Your task to perform on an android device: When is my next appointment? Image 0: 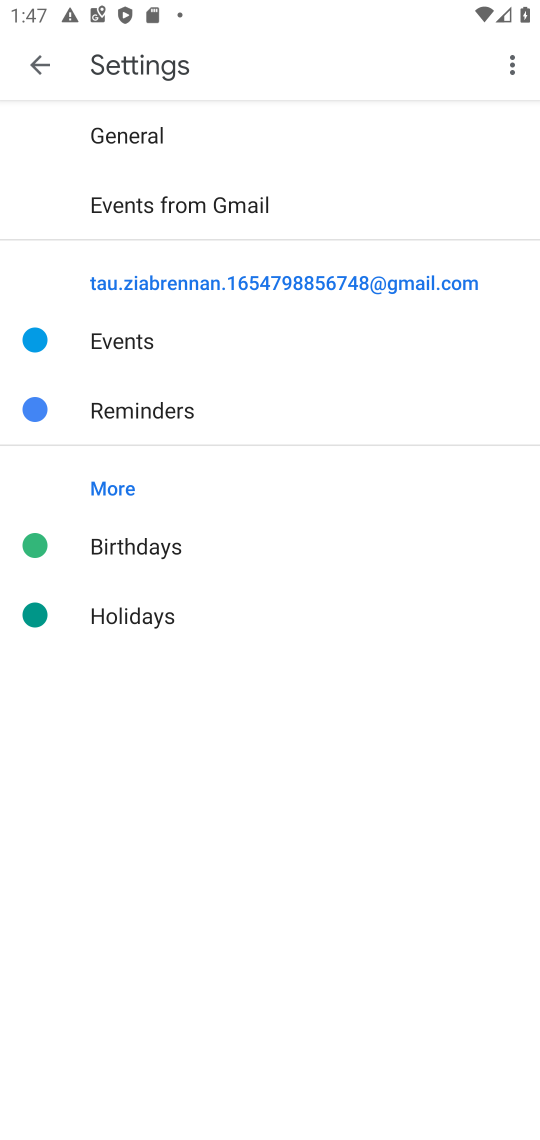
Step 0: press home button
Your task to perform on an android device: When is my next appointment? Image 1: 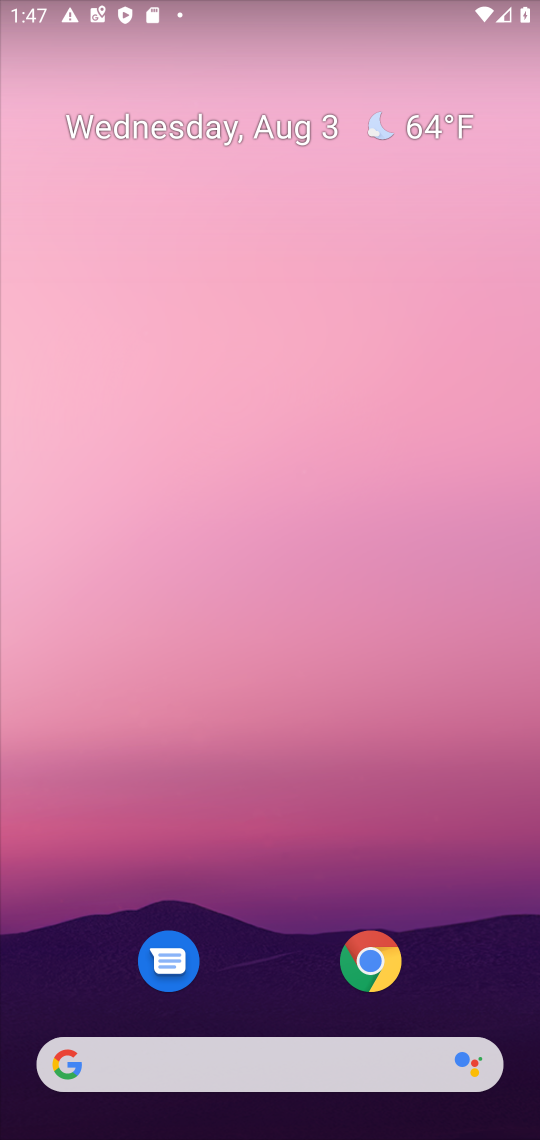
Step 1: drag from (280, 567) to (300, 71)
Your task to perform on an android device: When is my next appointment? Image 2: 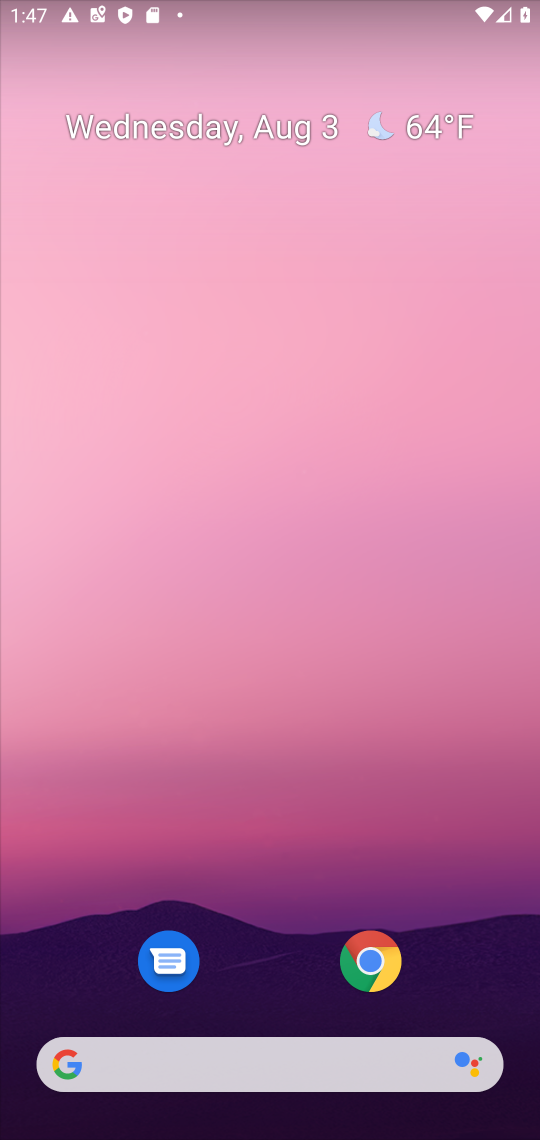
Step 2: drag from (262, 972) to (267, 7)
Your task to perform on an android device: When is my next appointment? Image 3: 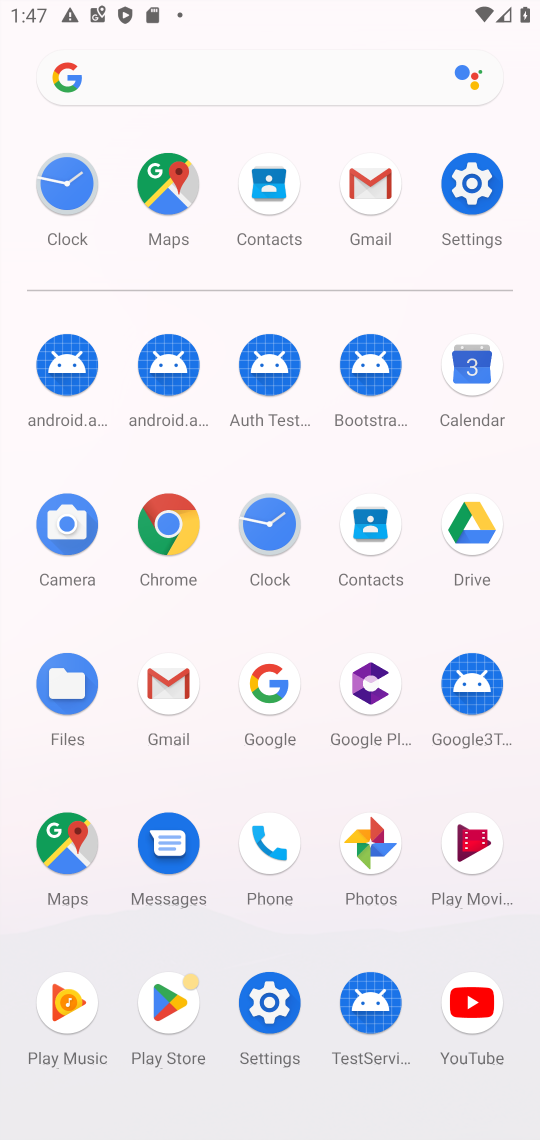
Step 3: click (473, 369)
Your task to perform on an android device: When is my next appointment? Image 4: 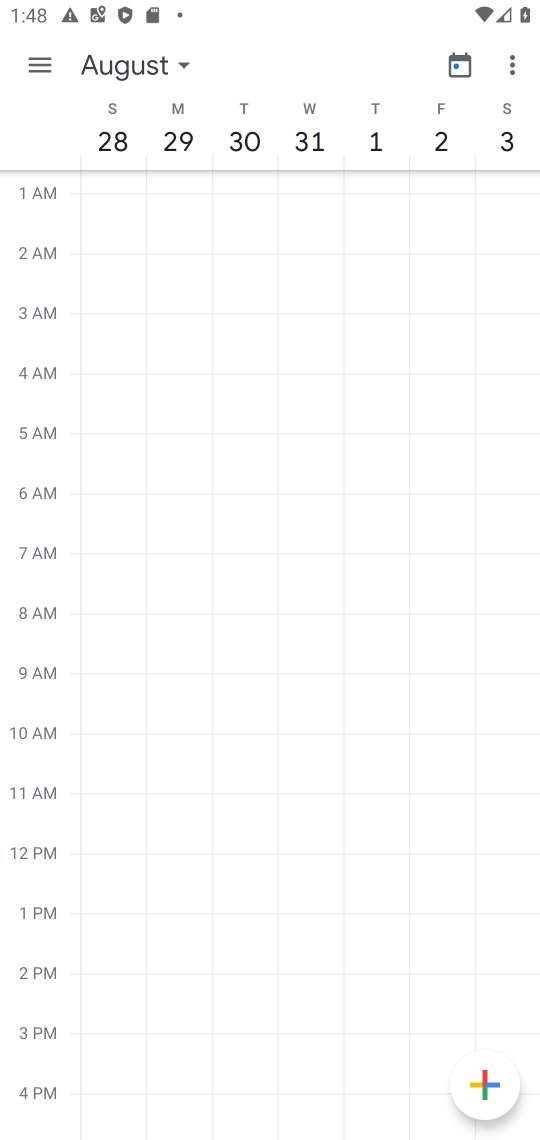
Step 4: click (47, 73)
Your task to perform on an android device: When is my next appointment? Image 5: 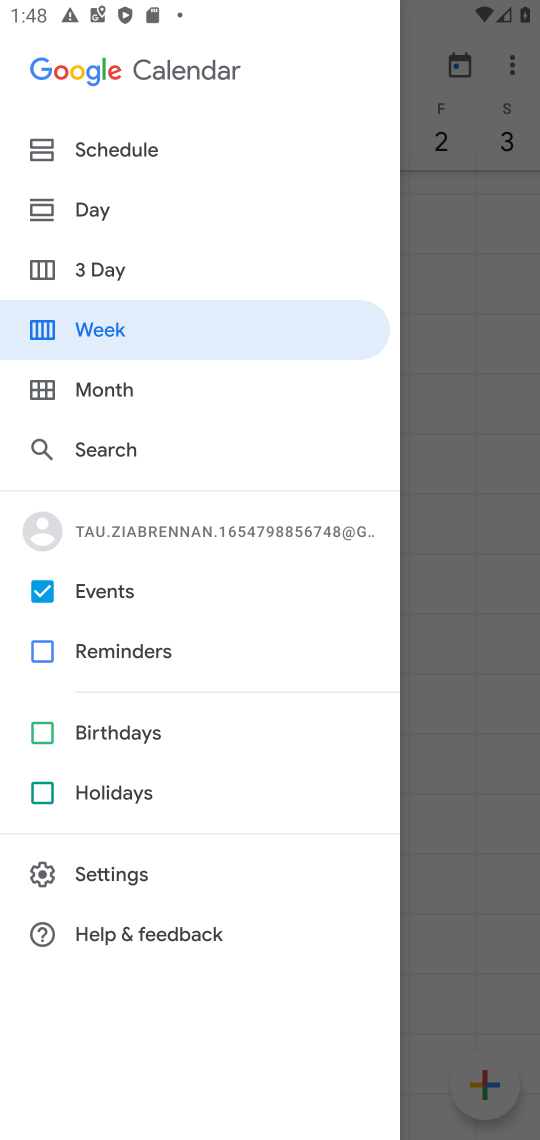
Step 5: click (102, 147)
Your task to perform on an android device: When is my next appointment? Image 6: 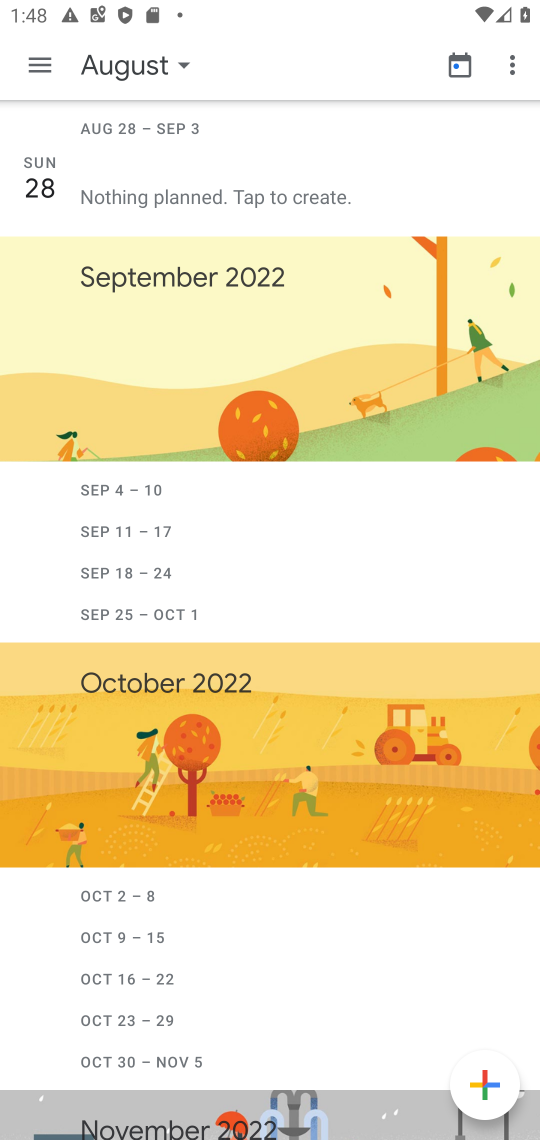
Step 6: click (452, 62)
Your task to perform on an android device: When is my next appointment? Image 7: 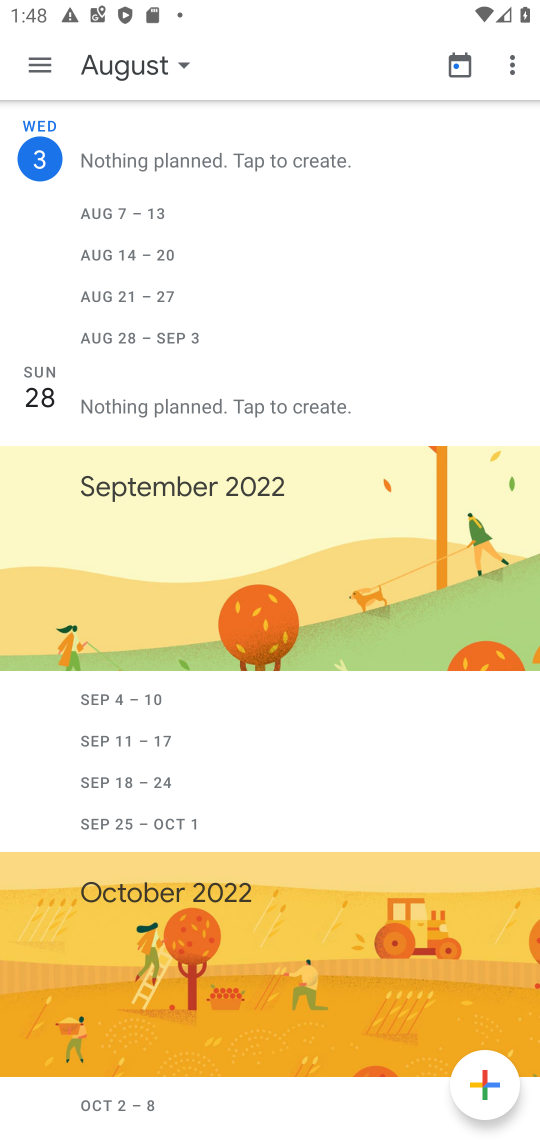
Step 7: task complete